Your task to perform on an android device: toggle location history Image 0: 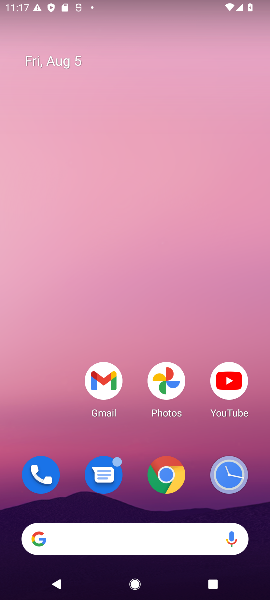
Step 0: drag from (132, 504) to (210, 1)
Your task to perform on an android device: toggle location history Image 1: 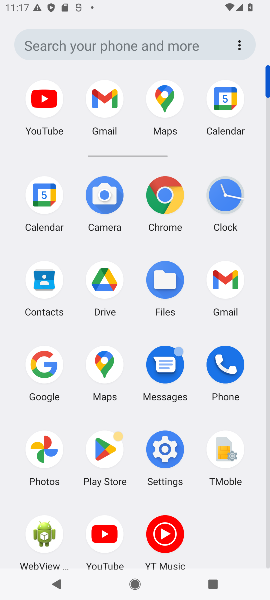
Step 1: click (171, 457)
Your task to perform on an android device: toggle location history Image 2: 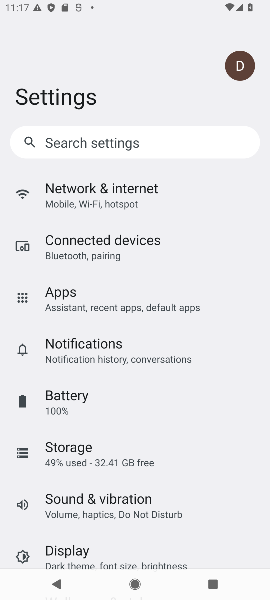
Step 2: drag from (116, 479) to (136, 183)
Your task to perform on an android device: toggle location history Image 3: 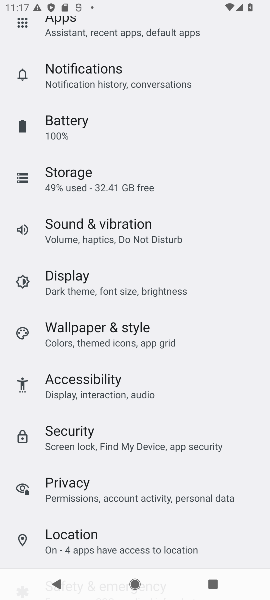
Step 3: click (91, 537)
Your task to perform on an android device: toggle location history Image 4: 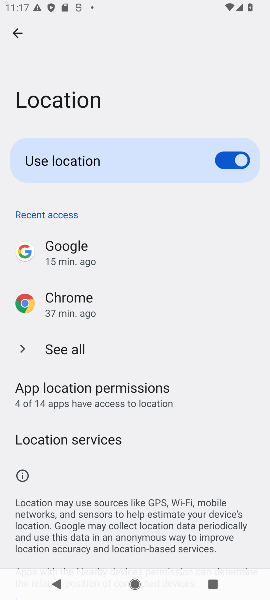
Step 4: click (61, 437)
Your task to perform on an android device: toggle location history Image 5: 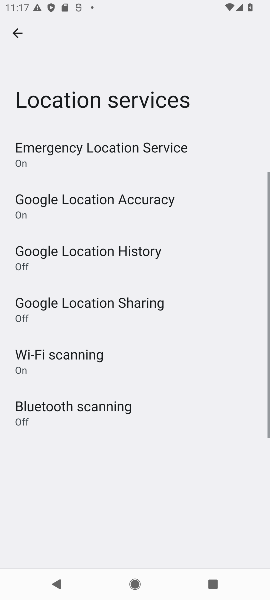
Step 5: click (130, 253)
Your task to perform on an android device: toggle location history Image 6: 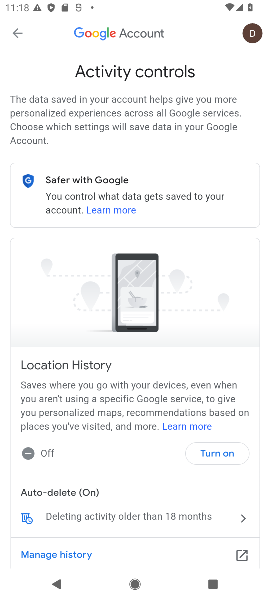
Step 6: click (220, 454)
Your task to perform on an android device: toggle location history Image 7: 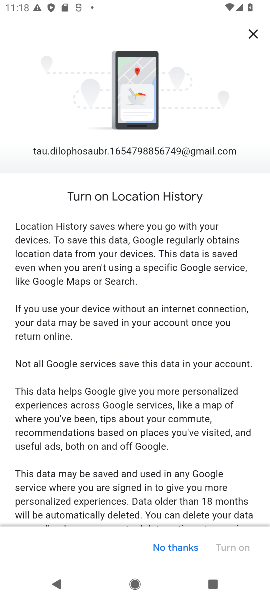
Step 7: drag from (148, 512) to (168, 67)
Your task to perform on an android device: toggle location history Image 8: 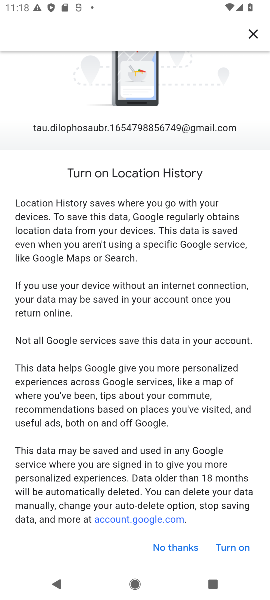
Step 8: drag from (181, 491) to (181, 199)
Your task to perform on an android device: toggle location history Image 9: 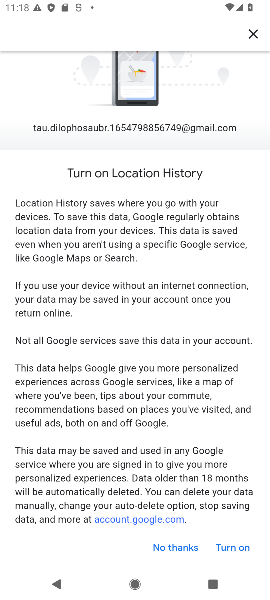
Step 9: click (227, 548)
Your task to perform on an android device: toggle location history Image 10: 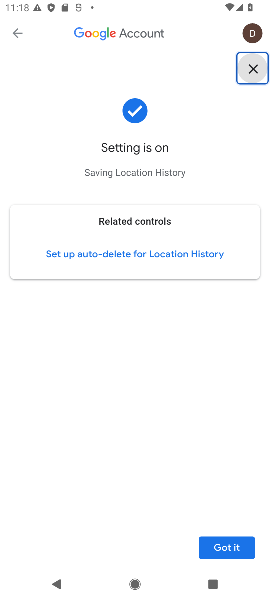
Step 10: click (234, 549)
Your task to perform on an android device: toggle location history Image 11: 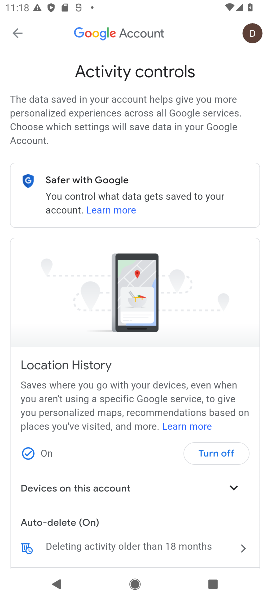
Step 11: task complete